Your task to perform on an android device: search for starred emails in the gmail app Image 0: 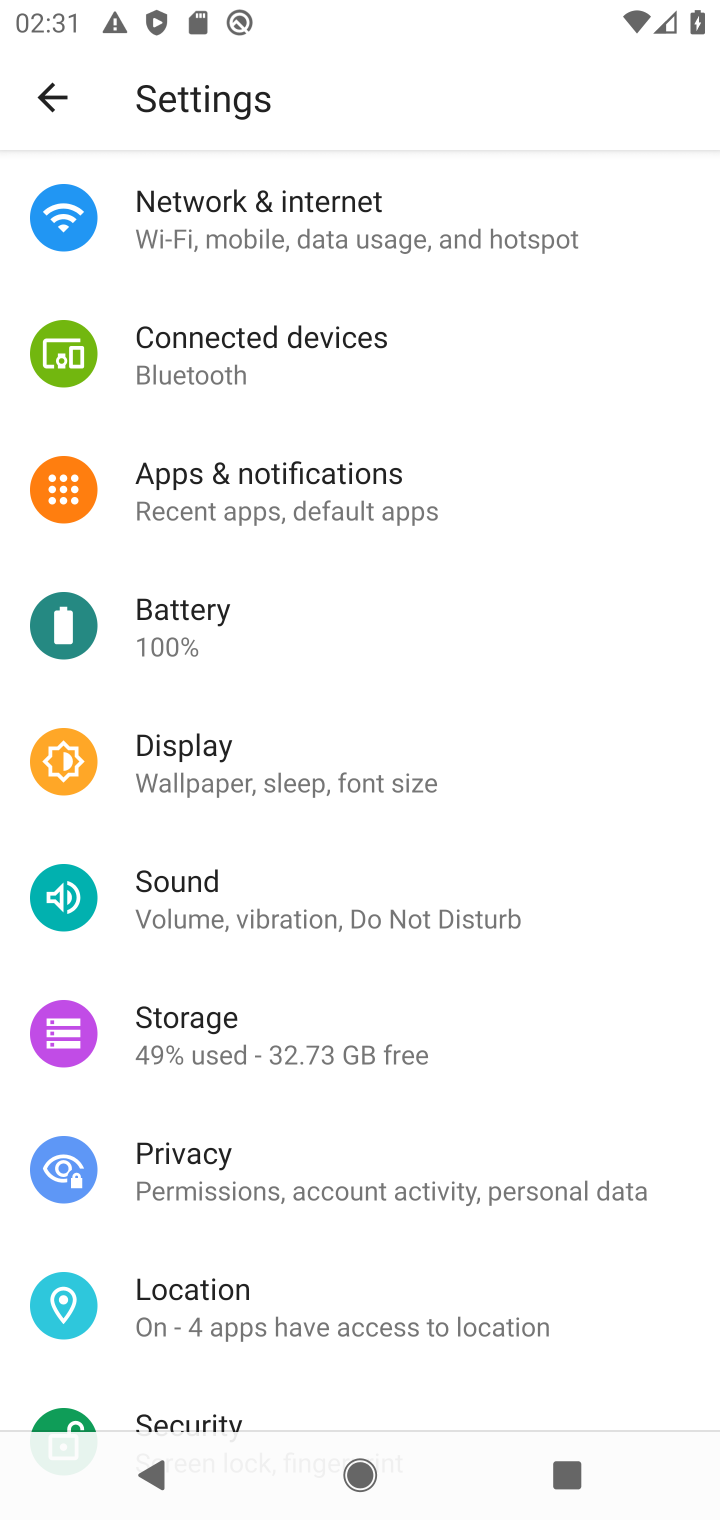
Step 0: press home button
Your task to perform on an android device: search for starred emails in the gmail app Image 1: 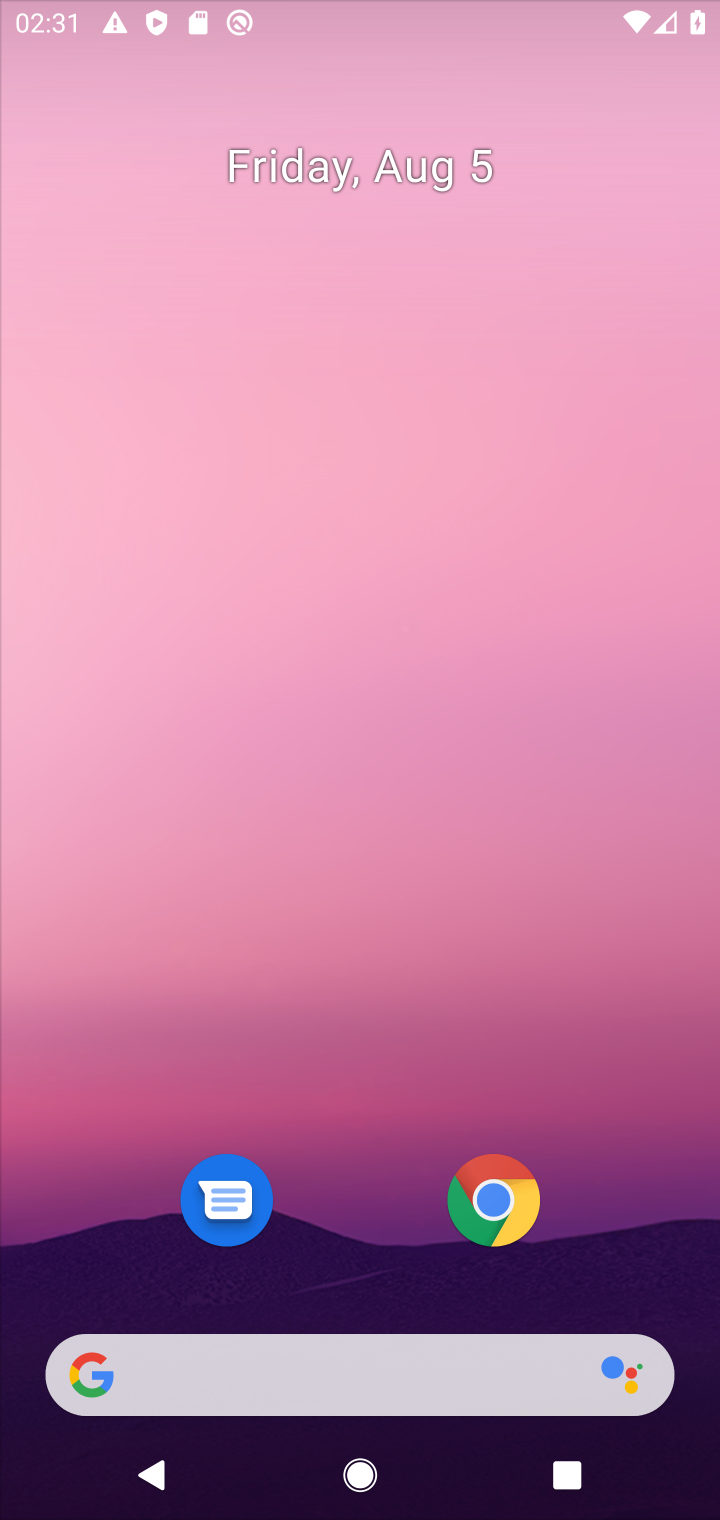
Step 1: drag from (334, 715) to (334, 155)
Your task to perform on an android device: search for starred emails in the gmail app Image 2: 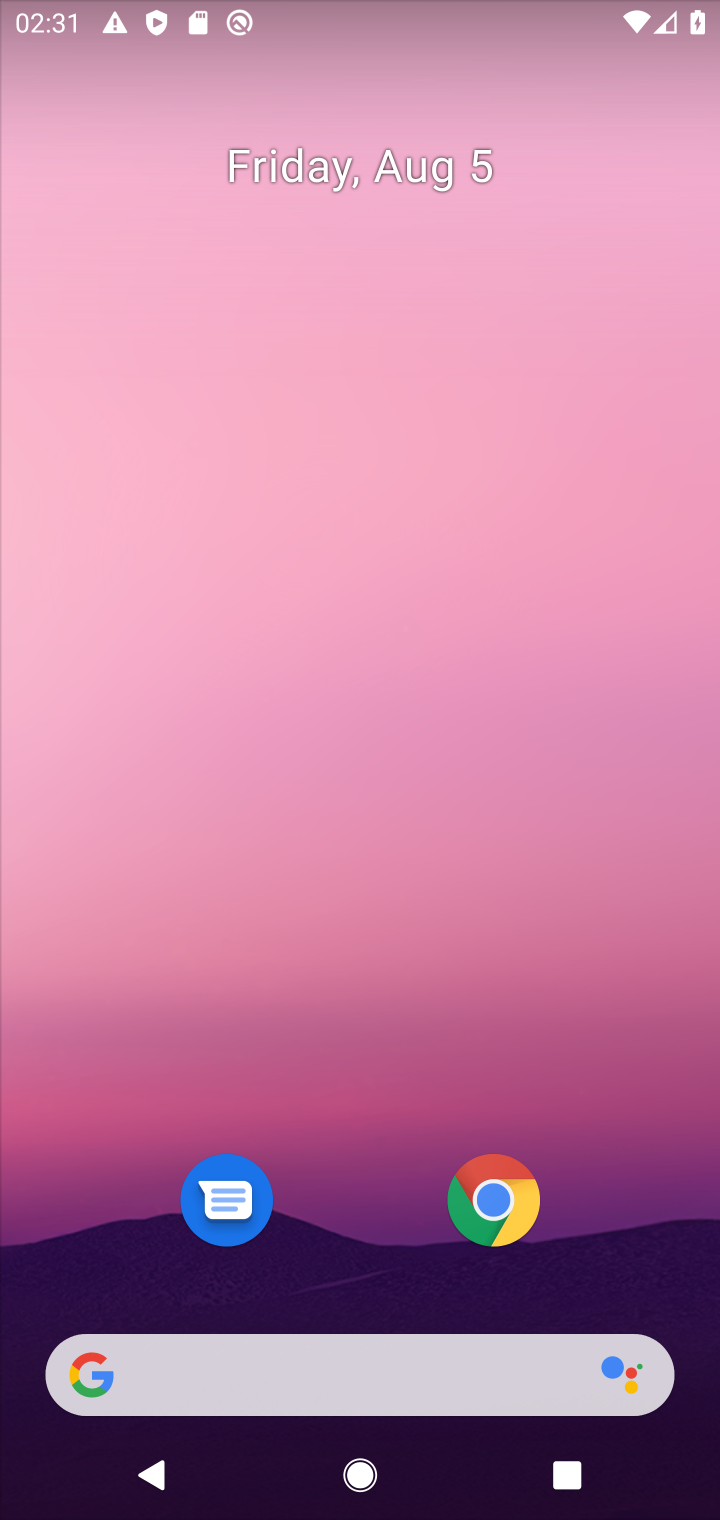
Step 2: drag from (343, 1104) to (343, 270)
Your task to perform on an android device: search for starred emails in the gmail app Image 3: 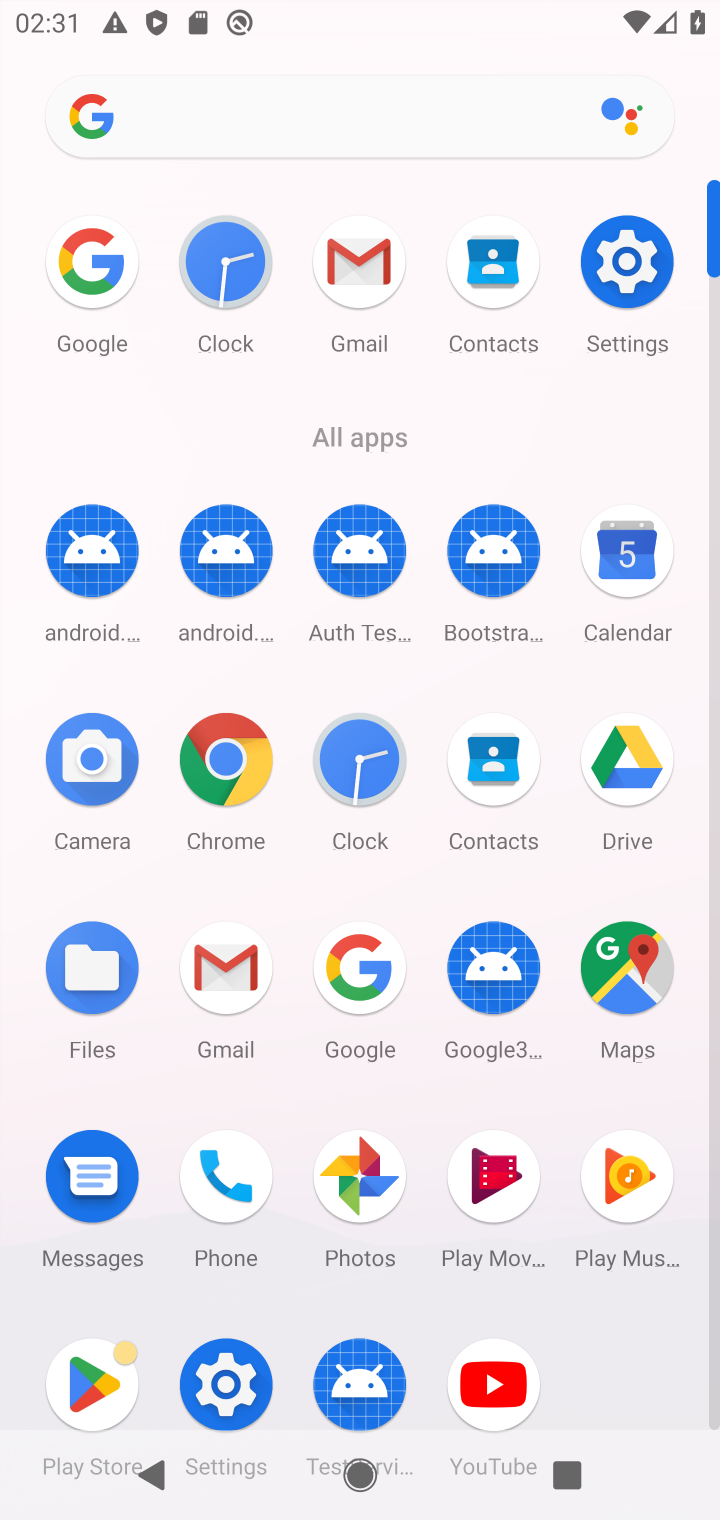
Step 3: click (196, 966)
Your task to perform on an android device: search for starred emails in the gmail app Image 4: 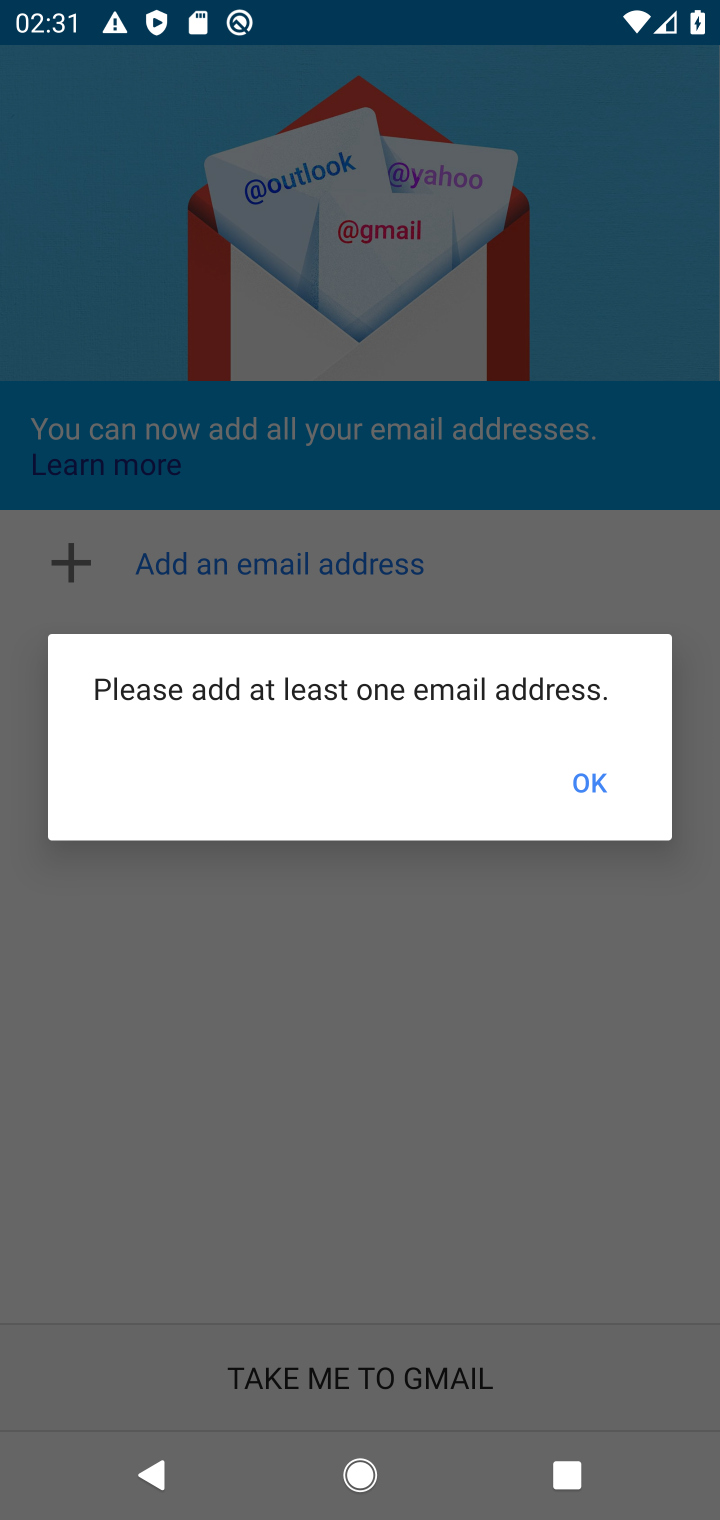
Step 4: click (589, 768)
Your task to perform on an android device: search for starred emails in the gmail app Image 5: 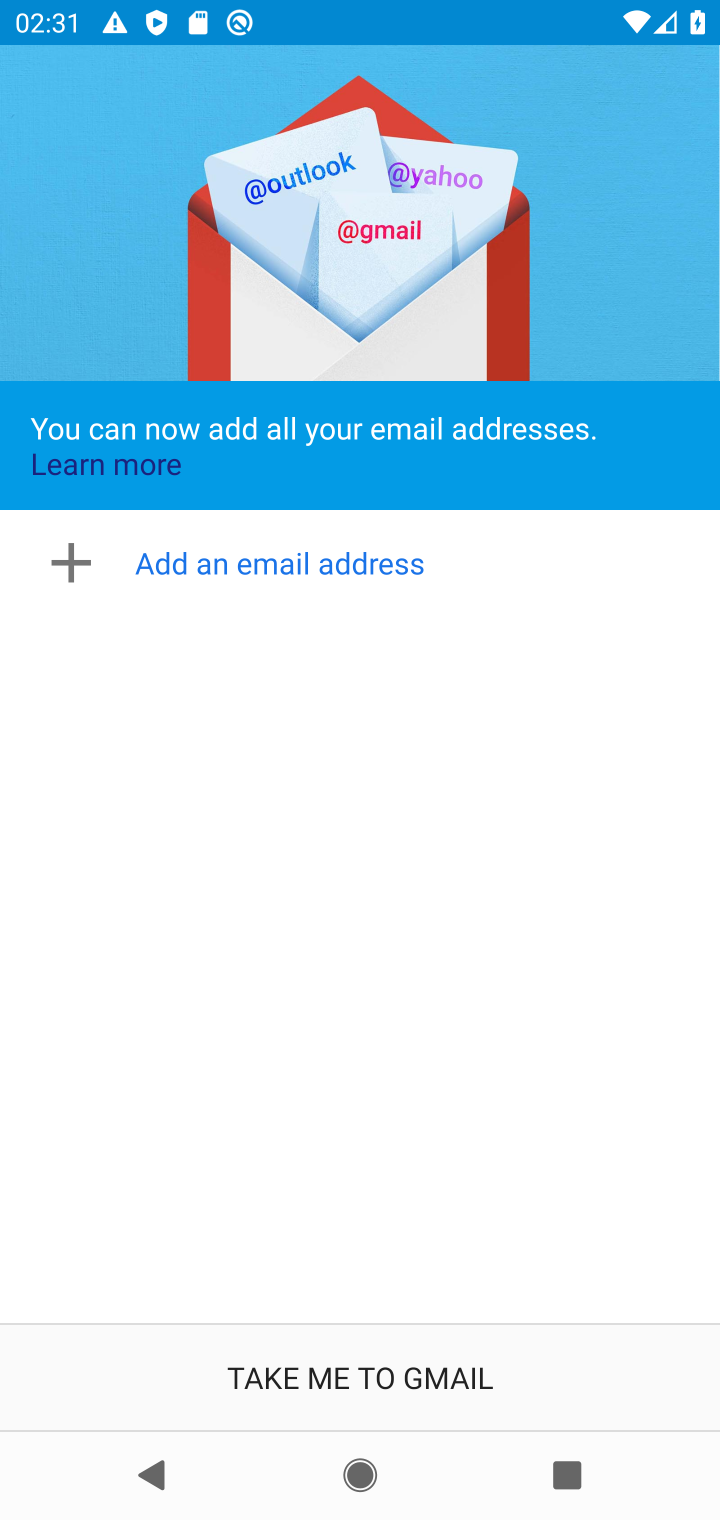
Step 5: task complete